Your task to perform on an android device: star an email in the gmail app Image 0: 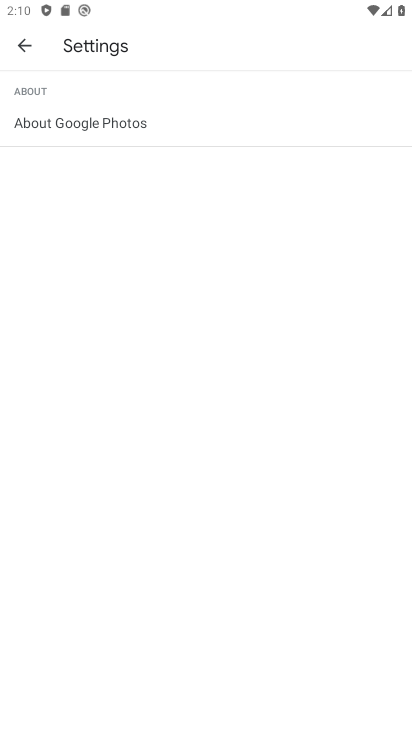
Step 0: drag from (339, 626) to (363, 460)
Your task to perform on an android device: star an email in the gmail app Image 1: 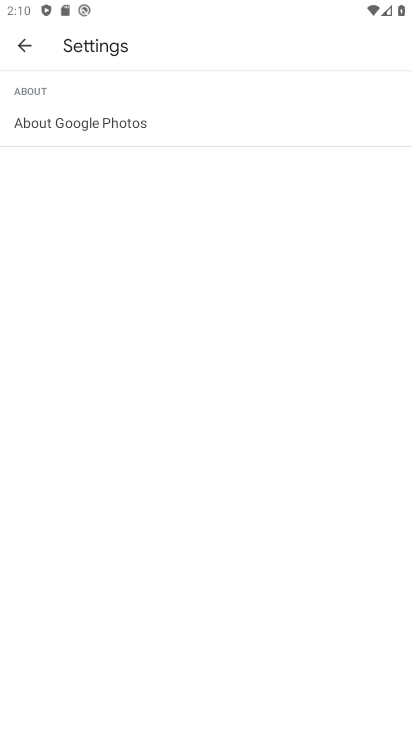
Step 1: press home button
Your task to perform on an android device: star an email in the gmail app Image 2: 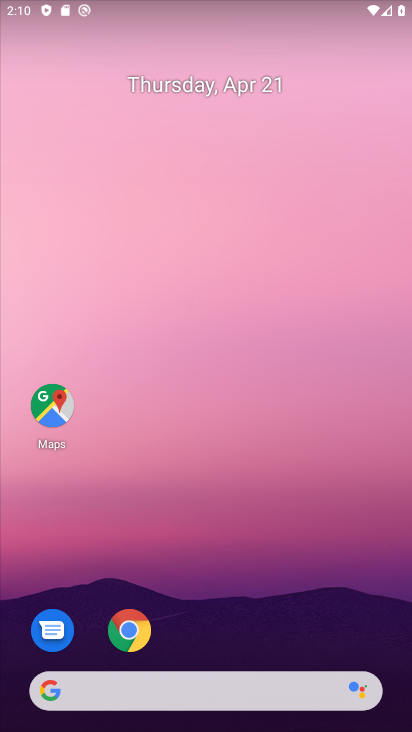
Step 2: drag from (357, 548) to (410, 178)
Your task to perform on an android device: star an email in the gmail app Image 3: 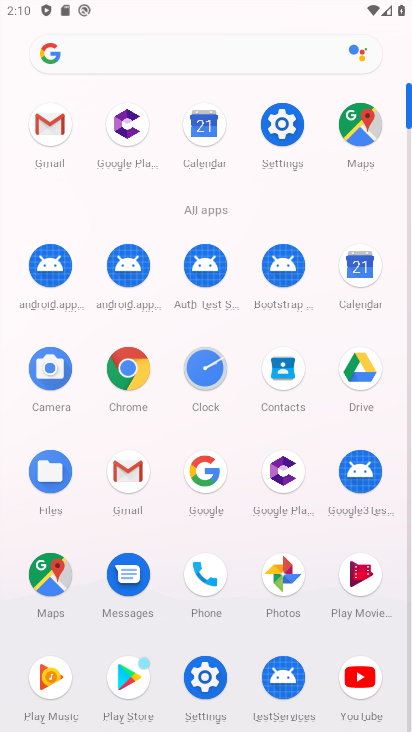
Step 3: click (110, 474)
Your task to perform on an android device: star an email in the gmail app Image 4: 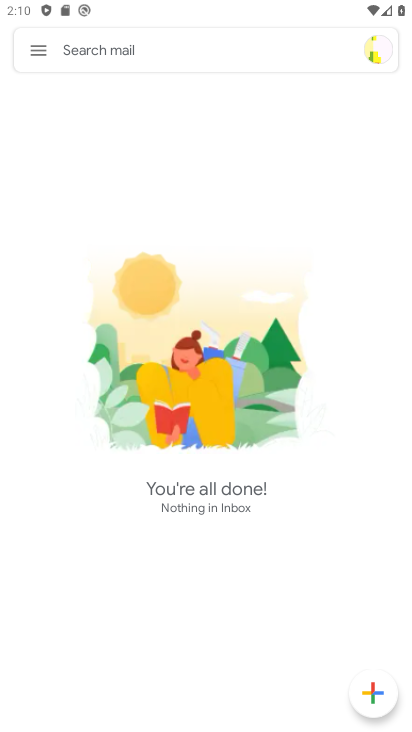
Step 4: task complete